Your task to perform on an android device: turn off data saver in the chrome app Image 0: 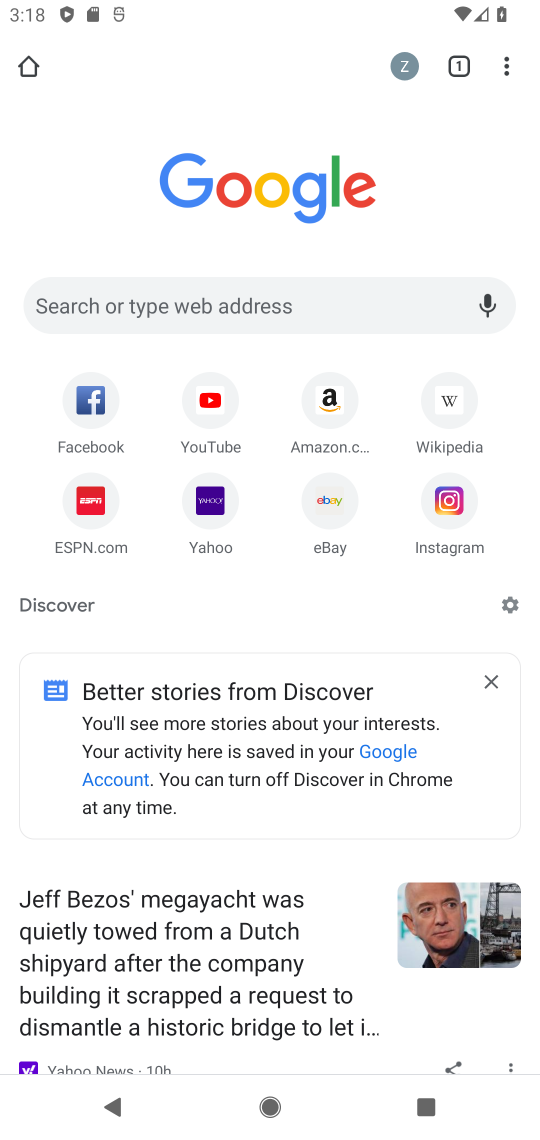
Step 0: press home button
Your task to perform on an android device: turn off data saver in the chrome app Image 1: 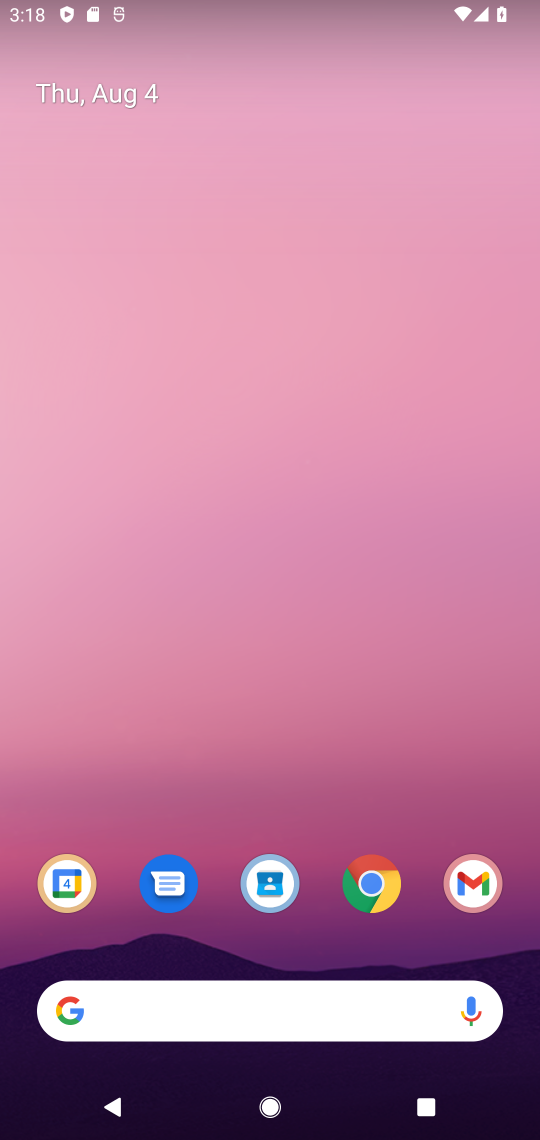
Step 1: drag from (324, 789) to (238, 193)
Your task to perform on an android device: turn off data saver in the chrome app Image 2: 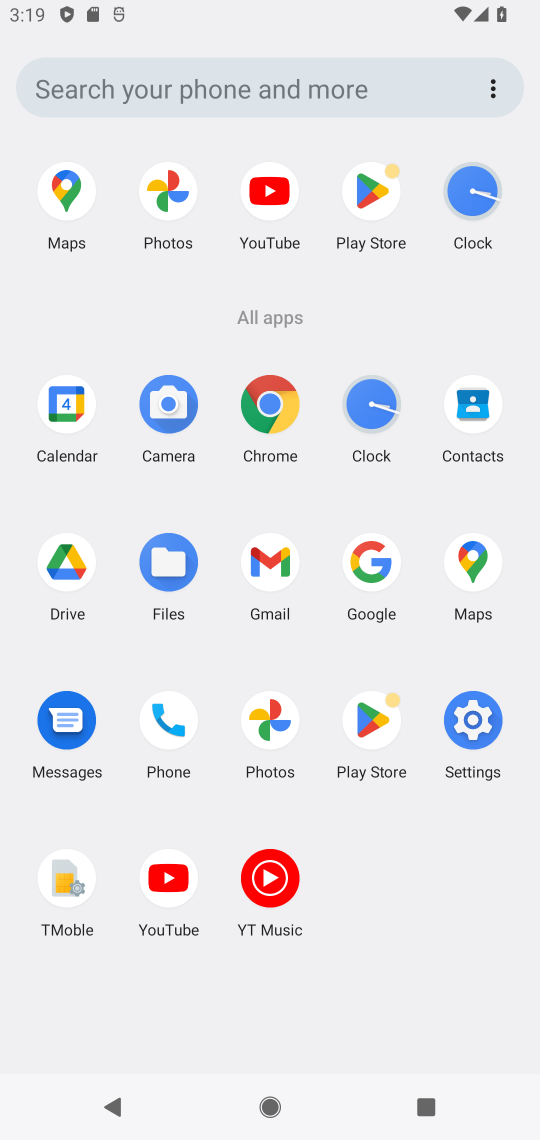
Step 2: click (279, 416)
Your task to perform on an android device: turn off data saver in the chrome app Image 3: 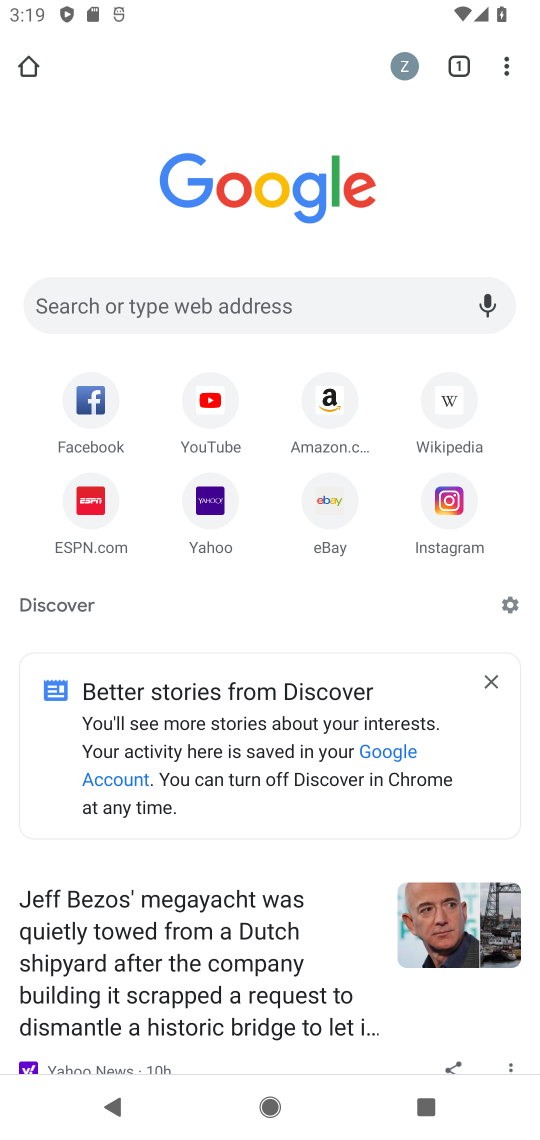
Step 3: click (509, 61)
Your task to perform on an android device: turn off data saver in the chrome app Image 4: 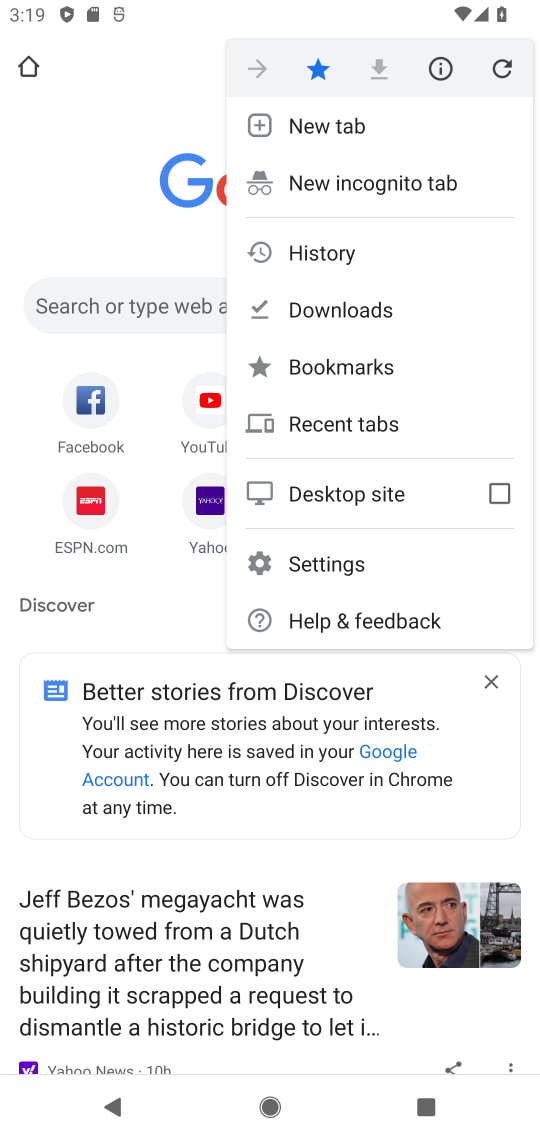
Step 4: click (365, 571)
Your task to perform on an android device: turn off data saver in the chrome app Image 5: 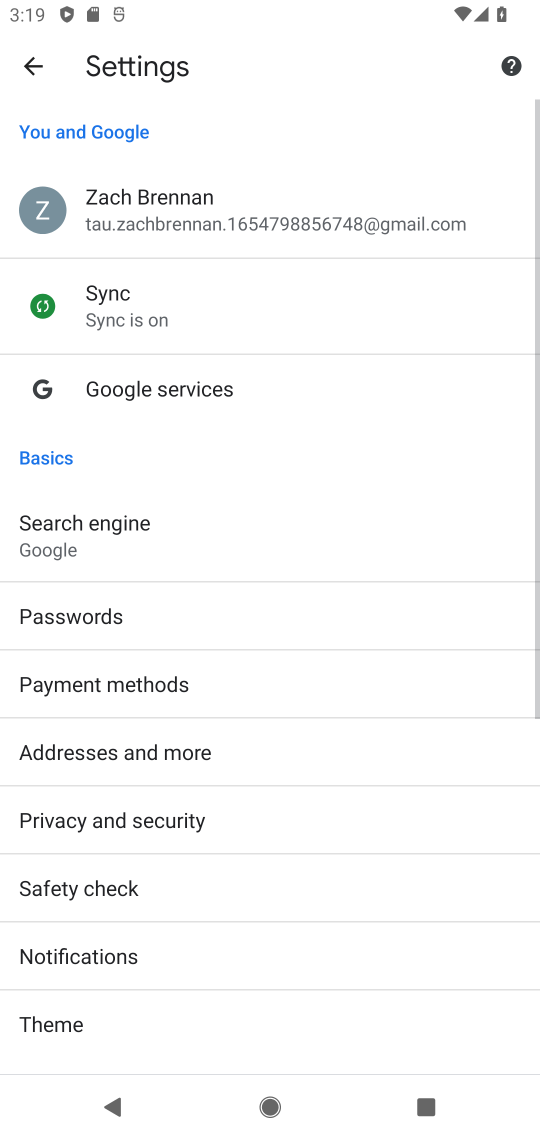
Step 5: drag from (139, 1036) to (130, 220)
Your task to perform on an android device: turn off data saver in the chrome app Image 6: 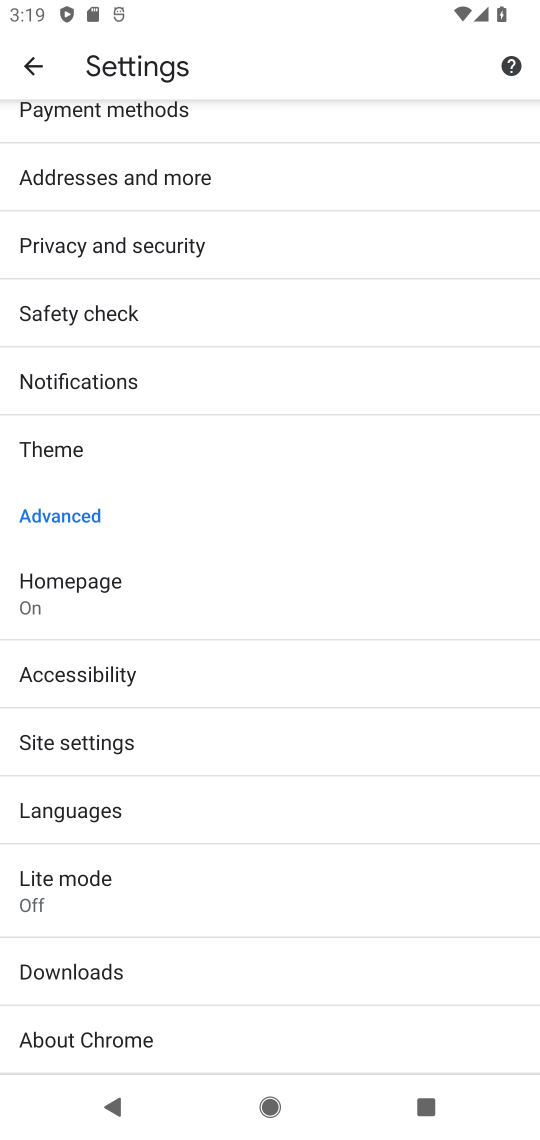
Step 6: click (93, 887)
Your task to perform on an android device: turn off data saver in the chrome app Image 7: 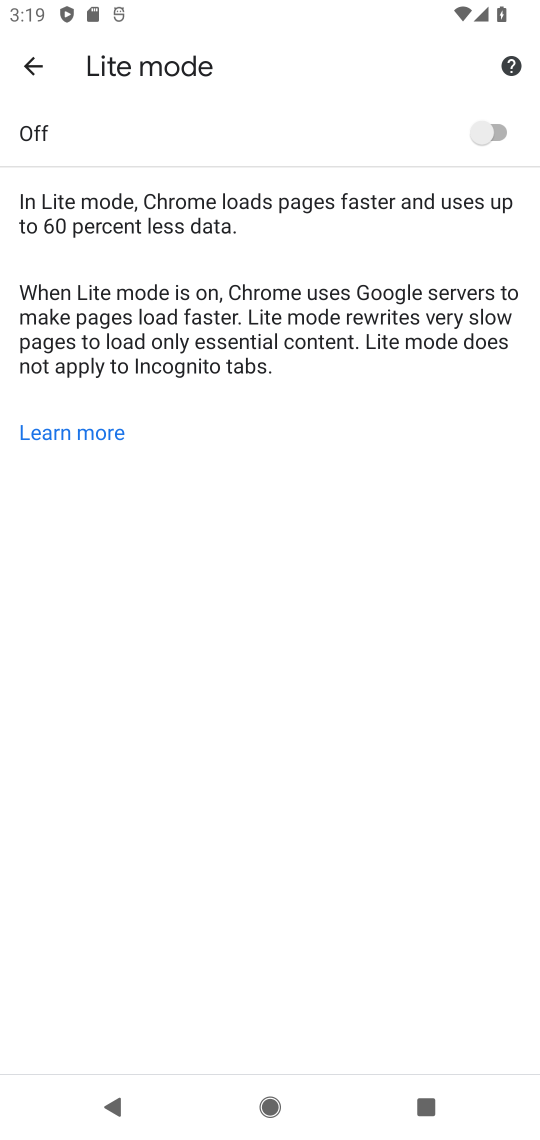
Step 7: click (502, 136)
Your task to perform on an android device: turn off data saver in the chrome app Image 8: 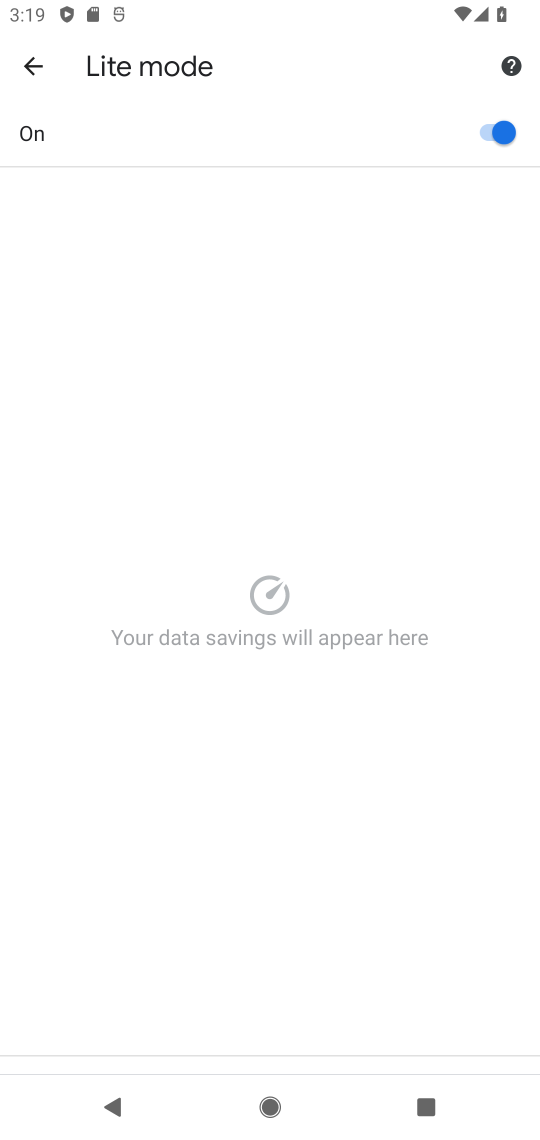
Step 8: click (502, 136)
Your task to perform on an android device: turn off data saver in the chrome app Image 9: 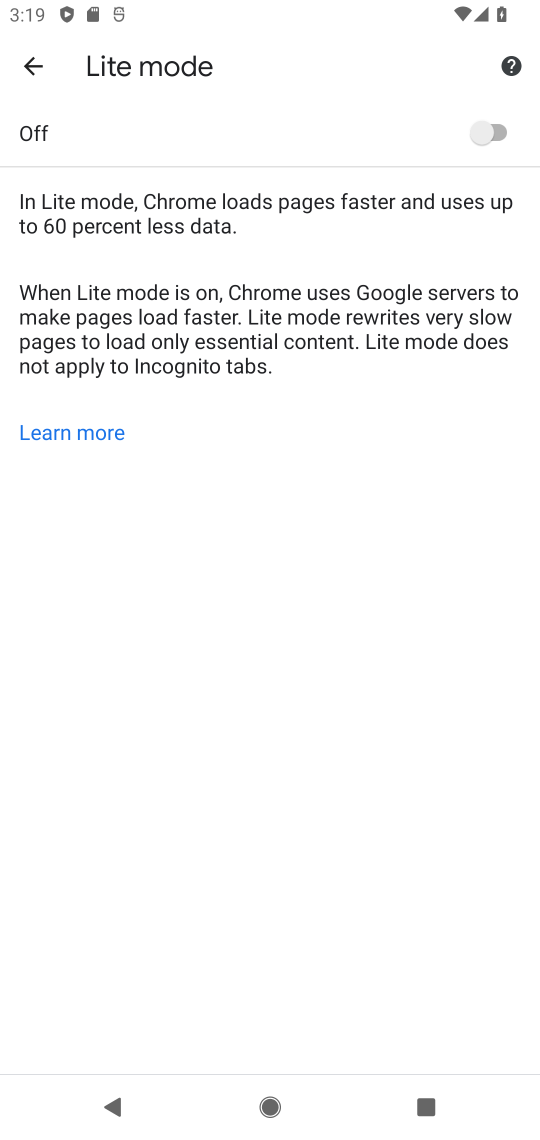
Step 9: task complete